Your task to perform on an android device: Go to CNN.com Image 0: 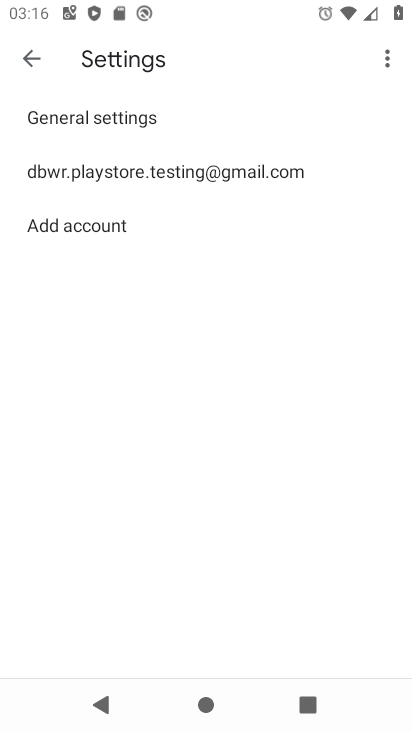
Step 0: press home button
Your task to perform on an android device: Go to CNN.com Image 1: 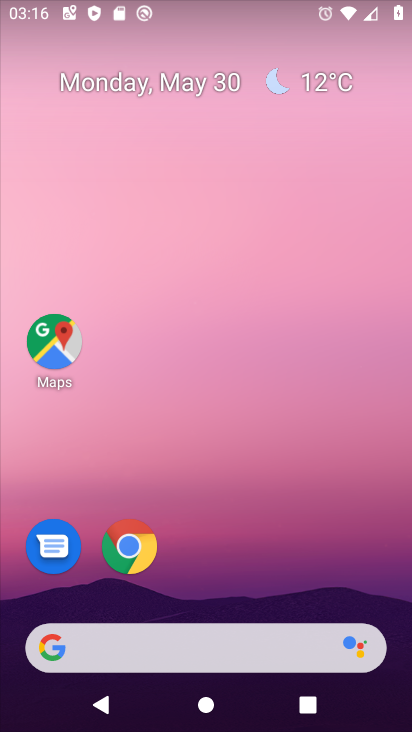
Step 1: click (125, 539)
Your task to perform on an android device: Go to CNN.com Image 2: 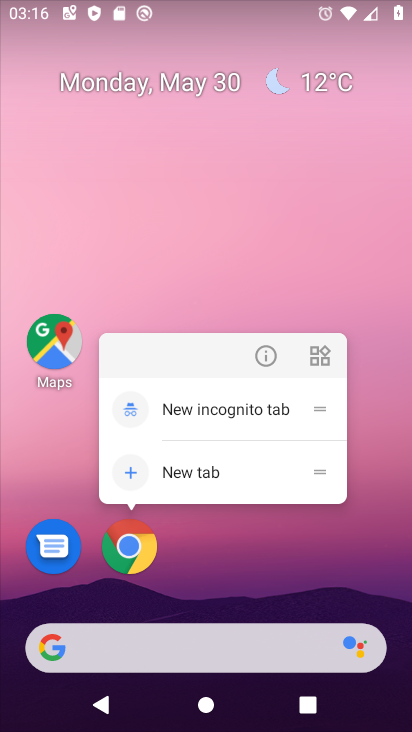
Step 2: click (128, 541)
Your task to perform on an android device: Go to CNN.com Image 3: 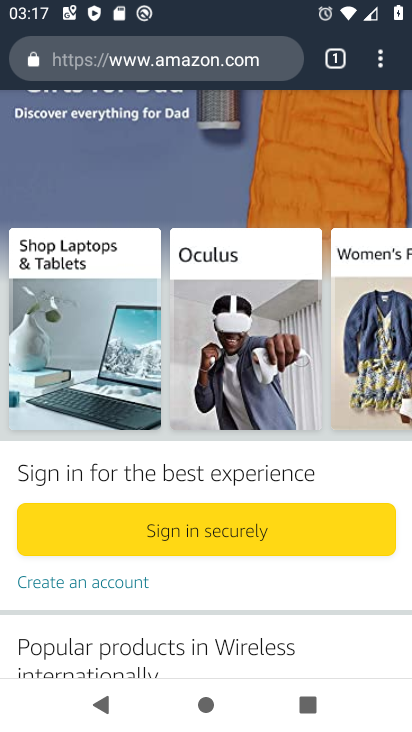
Step 3: click (328, 53)
Your task to perform on an android device: Go to CNN.com Image 4: 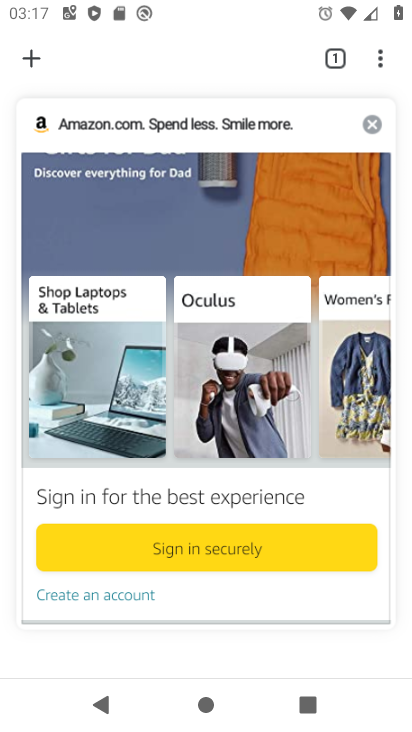
Step 4: click (370, 119)
Your task to perform on an android device: Go to CNN.com Image 5: 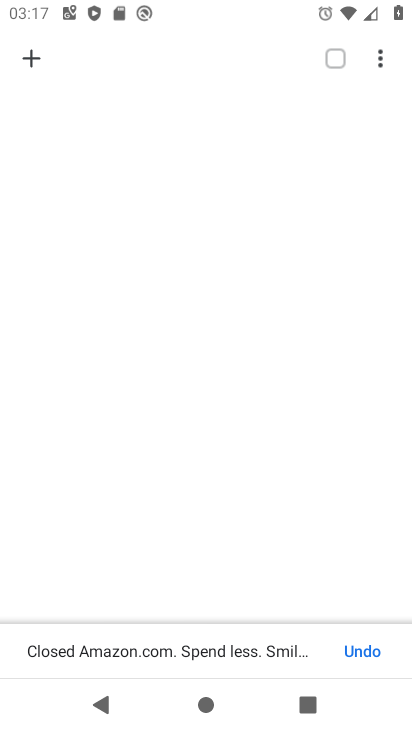
Step 5: click (34, 56)
Your task to perform on an android device: Go to CNN.com Image 6: 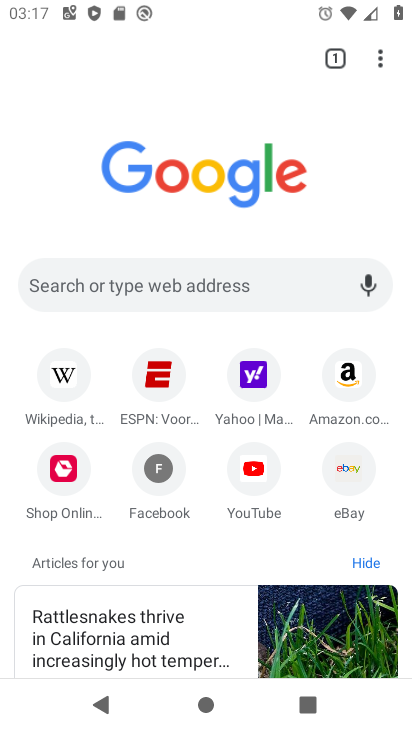
Step 6: click (212, 270)
Your task to perform on an android device: Go to CNN.com Image 7: 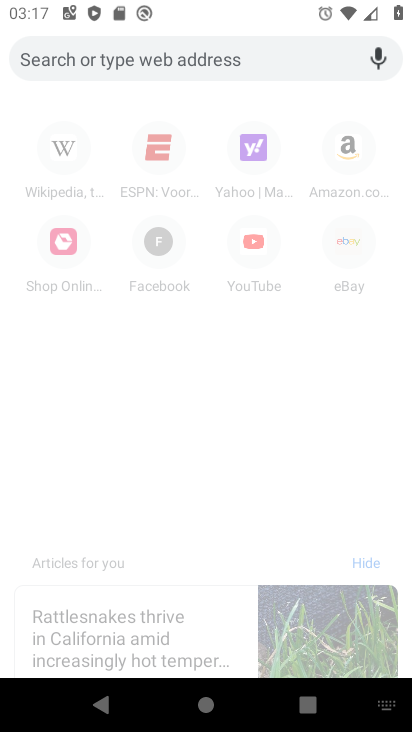
Step 7: type "cnn.com"
Your task to perform on an android device: Go to CNN.com Image 8: 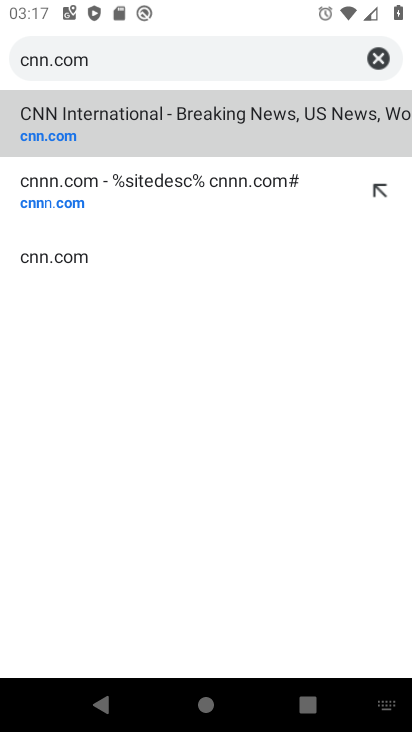
Step 8: click (163, 142)
Your task to perform on an android device: Go to CNN.com Image 9: 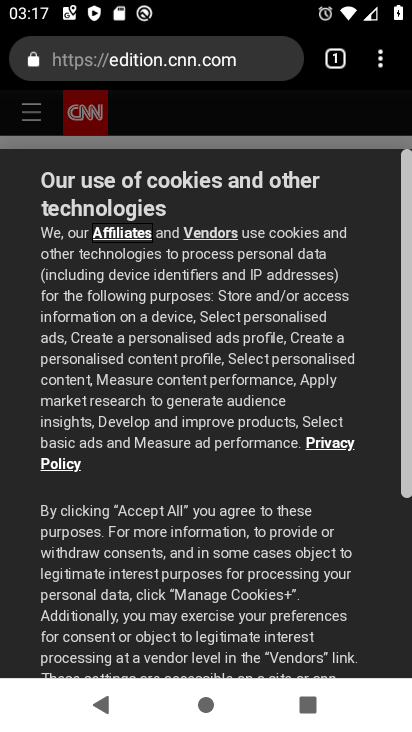
Step 9: drag from (263, 494) to (261, 250)
Your task to perform on an android device: Go to CNN.com Image 10: 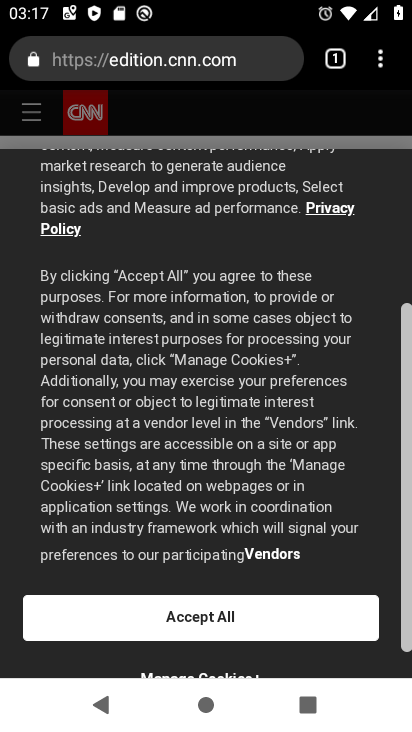
Step 10: click (215, 615)
Your task to perform on an android device: Go to CNN.com Image 11: 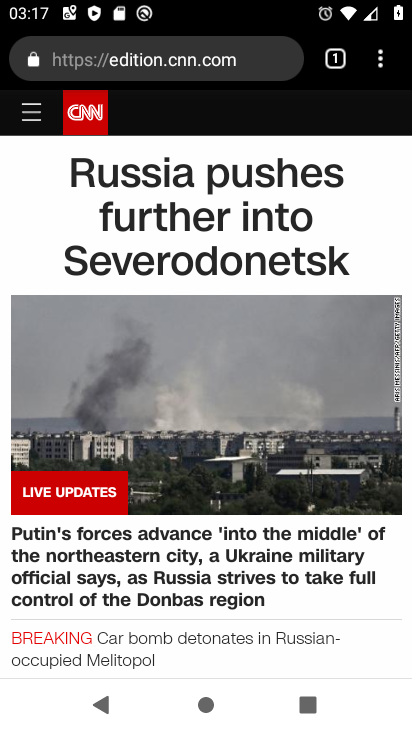
Step 11: task complete